Your task to perform on an android device: View the shopping cart on newegg. Search for macbook air on newegg, select the first entry, add it to the cart, then select checkout. Image 0: 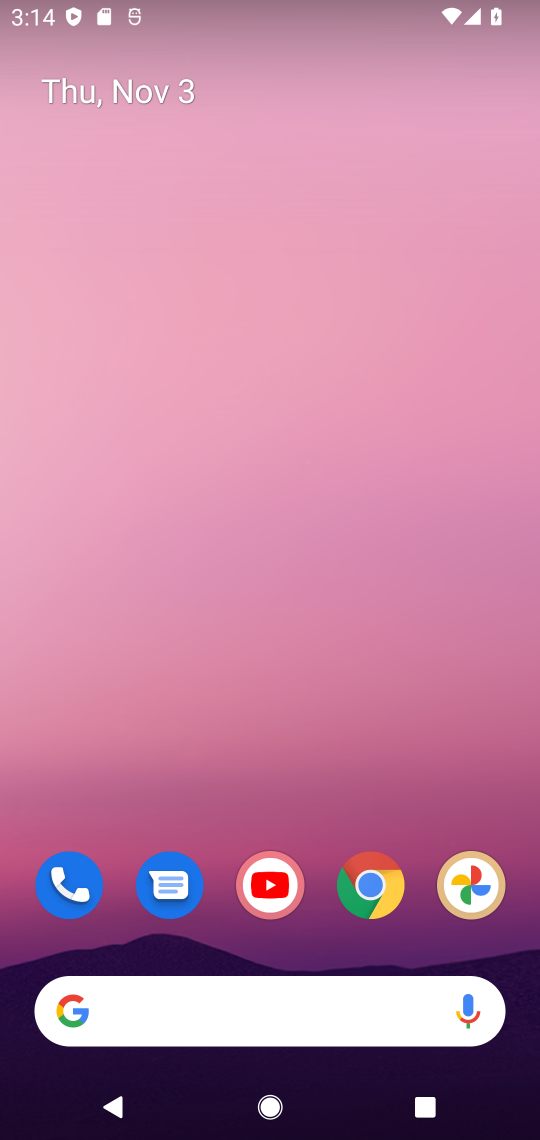
Step 0: click (275, 270)
Your task to perform on an android device: View the shopping cart on newegg. Search for macbook air on newegg, select the first entry, add it to the cart, then select checkout. Image 1: 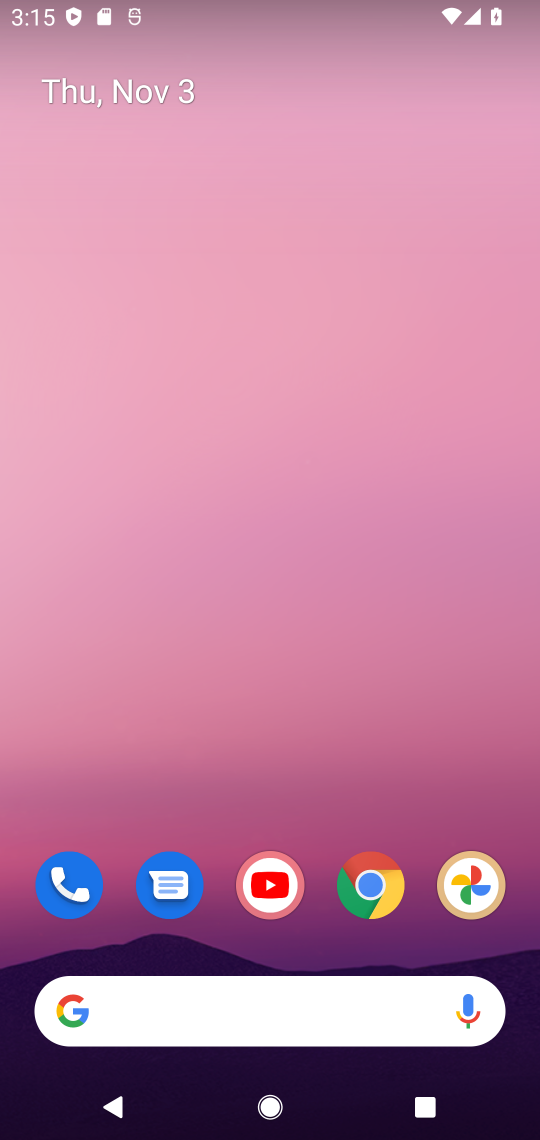
Step 1: click (370, 885)
Your task to perform on an android device: View the shopping cart on newegg. Search for macbook air on newegg, select the first entry, add it to the cart, then select checkout. Image 2: 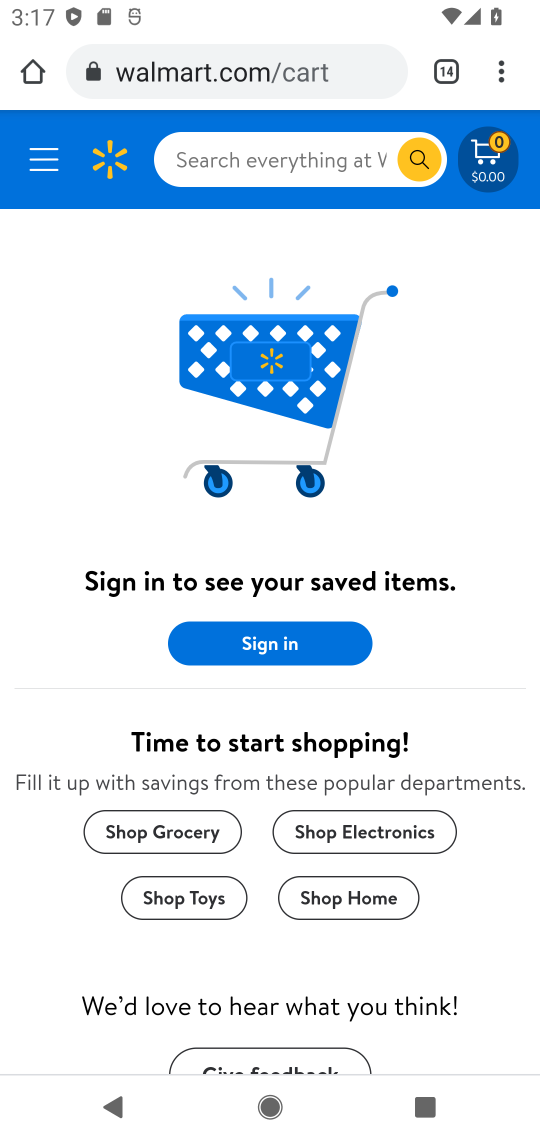
Step 2: drag from (497, 70) to (260, 244)
Your task to perform on an android device: View the shopping cart on newegg. Search for macbook air on newegg, select the first entry, add it to the cart, then select checkout. Image 3: 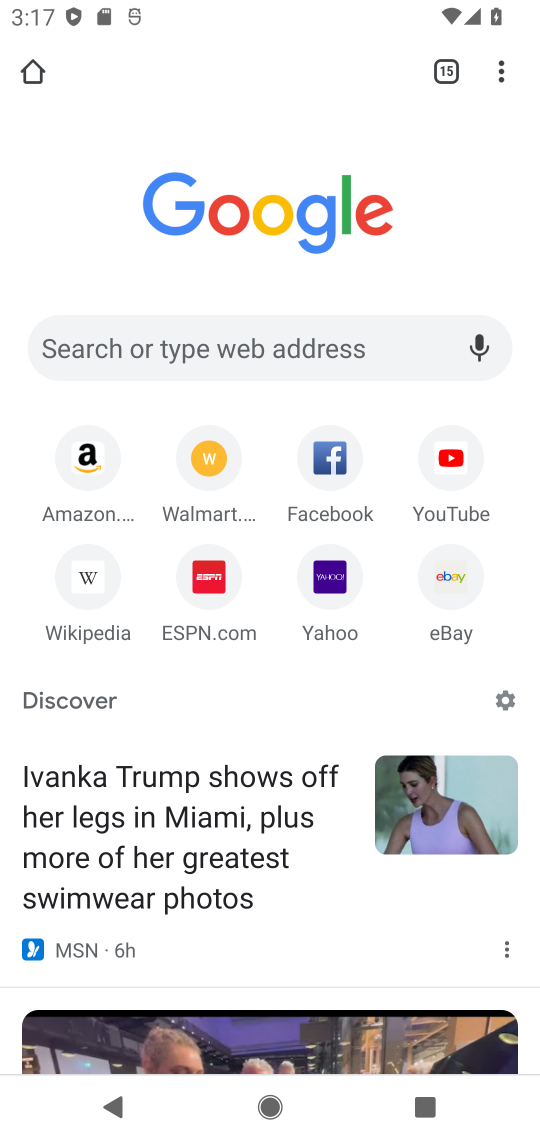
Step 3: click (222, 350)
Your task to perform on an android device: View the shopping cart on newegg. Search for macbook air on newegg, select the first entry, add it to the cart, then select checkout. Image 4: 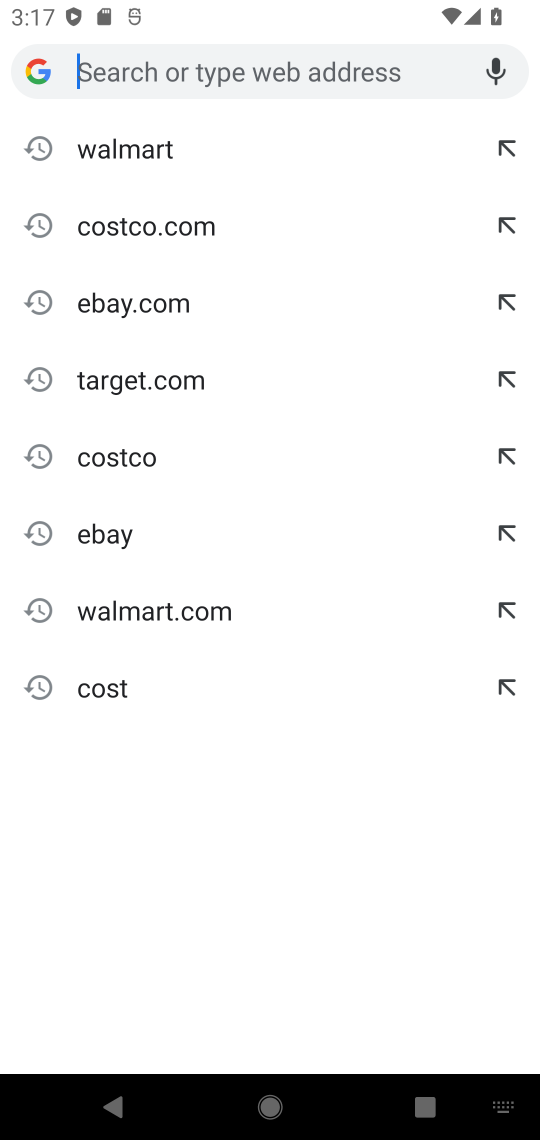
Step 4: type "newegg"
Your task to perform on an android device: View the shopping cart on newegg. Search for macbook air on newegg, select the first entry, add it to the cart, then select checkout. Image 5: 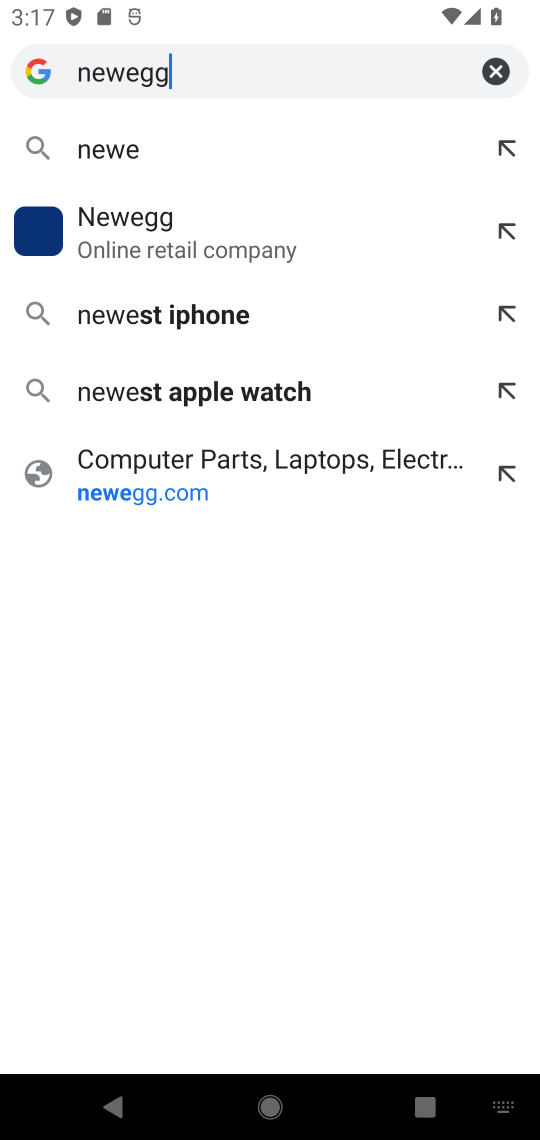
Step 5: type ""
Your task to perform on an android device: View the shopping cart on newegg. Search for macbook air on newegg, select the first entry, add it to the cart, then select checkout. Image 6: 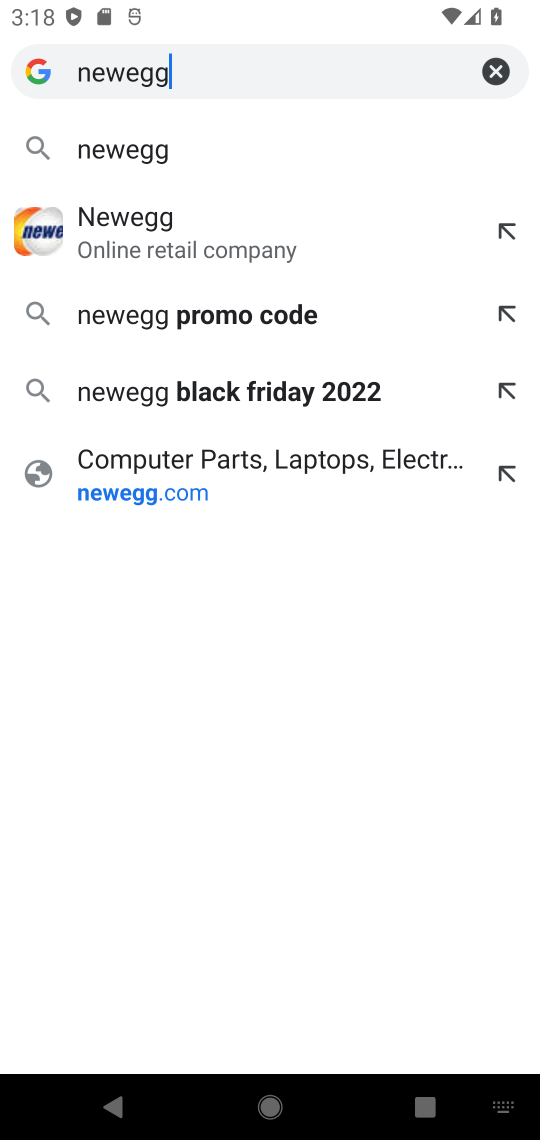
Step 6: click (101, 146)
Your task to perform on an android device: View the shopping cart on newegg. Search for macbook air on newegg, select the first entry, add it to the cart, then select checkout. Image 7: 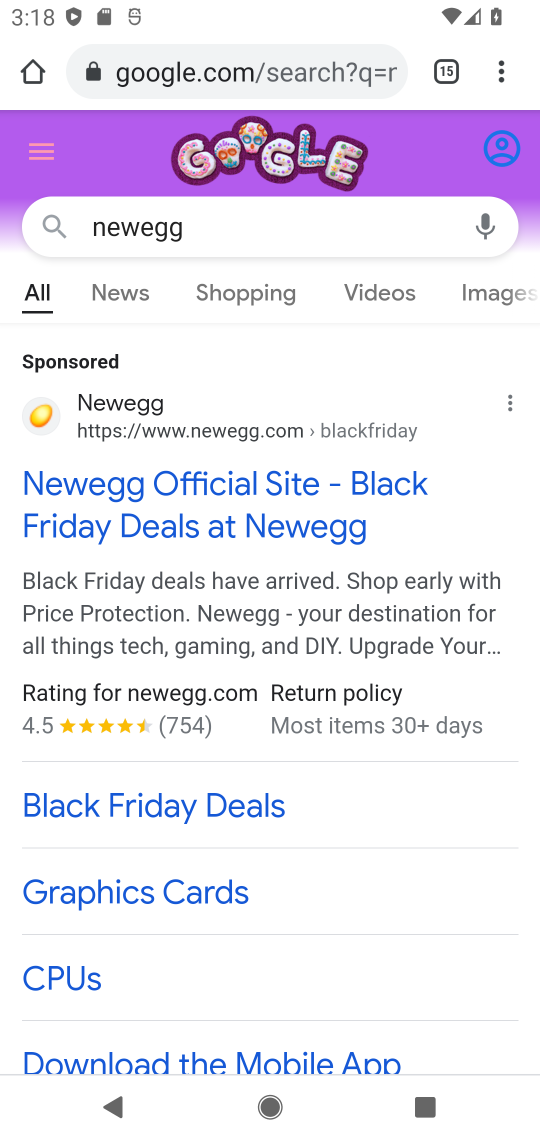
Step 7: click (177, 480)
Your task to perform on an android device: View the shopping cart on newegg. Search for macbook air on newegg, select the first entry, add it to the cart, then select checkout. Image 8: 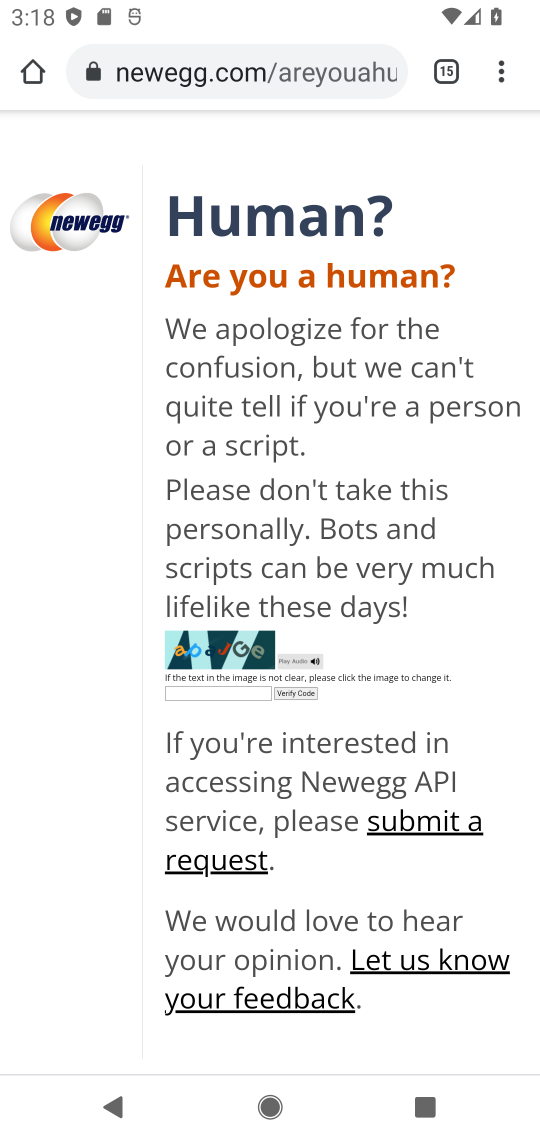
Step 8: task complete